Your task to perform on an android device: check out phone information Image 0: 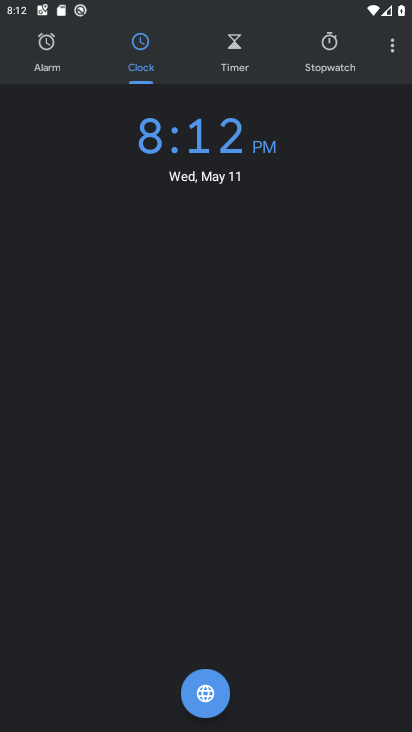
Step 0: press home button
Your task to perform on an android device: check out phone information Image 1: 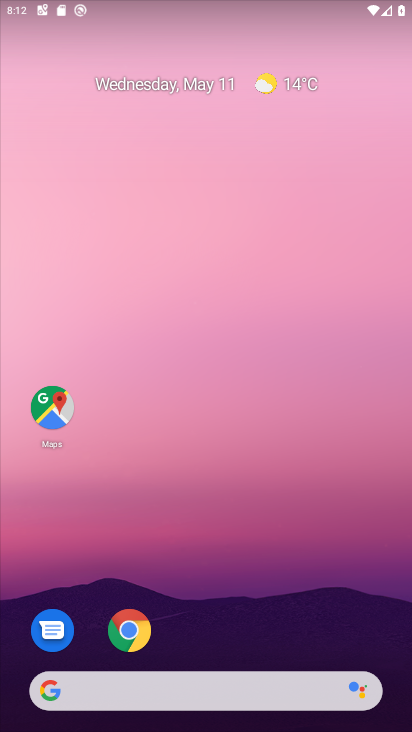
Step 1: drag from (29, 611) to (158, 176)
Your task to perform on an android device: check out phone information Image 2: 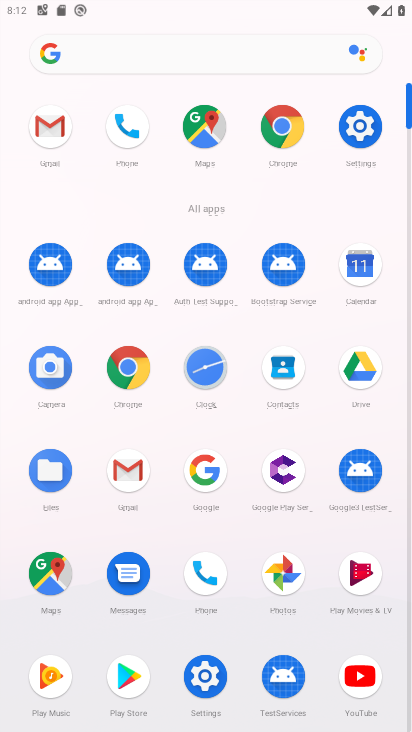
Step 2: click (133, 128)
Your task to perform on an android device: check out phone information Image 3: 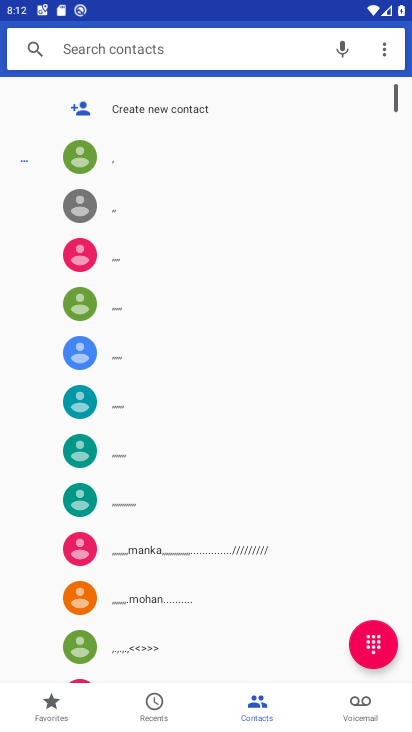
Step 3: click (49, 710)
Your task to perform on an android device: check out phone information Image 4: 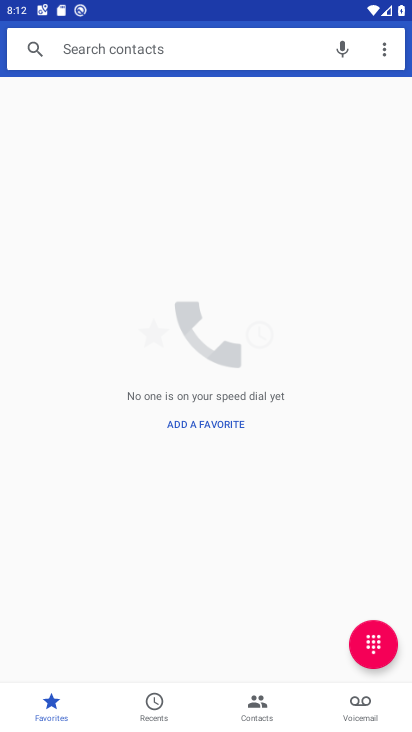
Step 4: task complete